Your task to perform on an android device: toggle wifi Image 0: 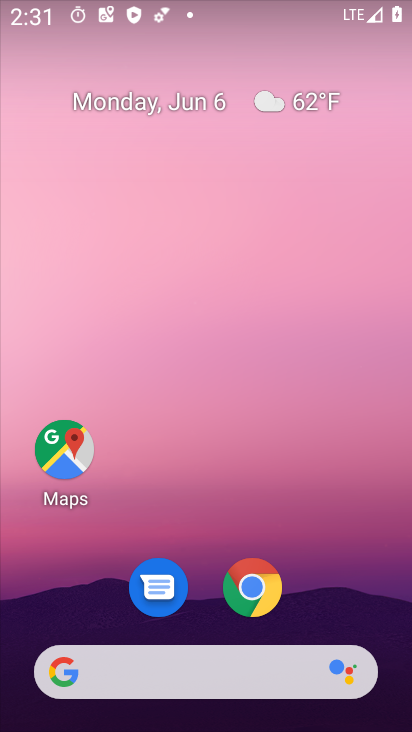
Step 0: drag from (314, 551) to (231, 53)
Your task to perform on an android device: toggle wifi Image 1: 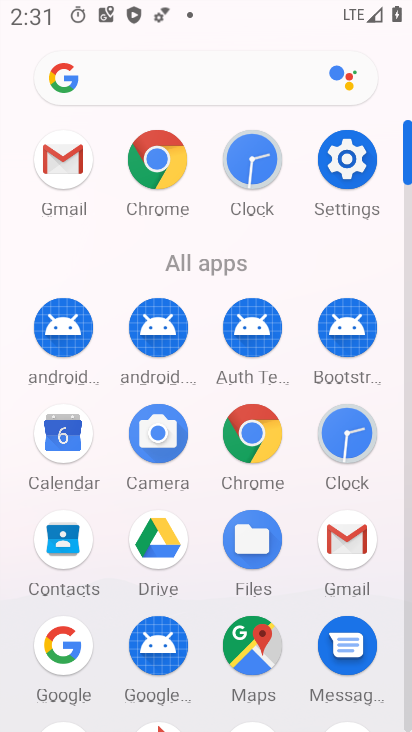
Step 1: drag from (16, 598) to (53, 282)
Your task to perform on an android device: toggle wifi Image 2: 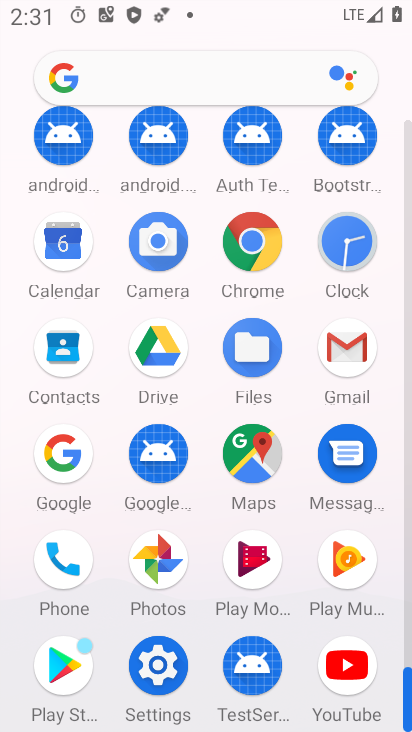
Step 2: click (162, 657)
Your task to perform on an android device: toggle wifi Image 3: 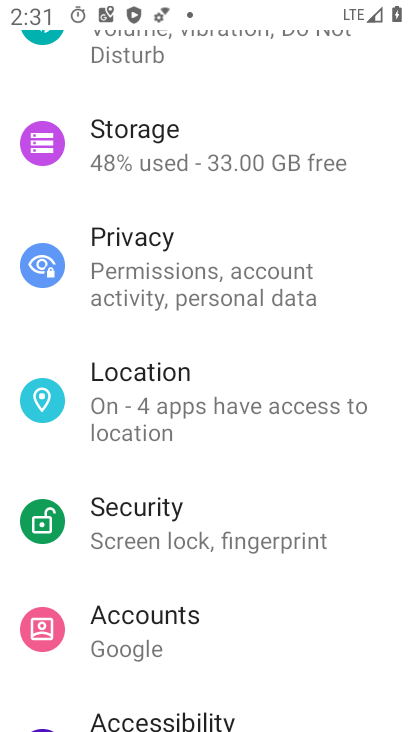
Step 3: drag from (239, 144) to (250, 589)
Your task to perform on an android device: toggle wifi Image 4: 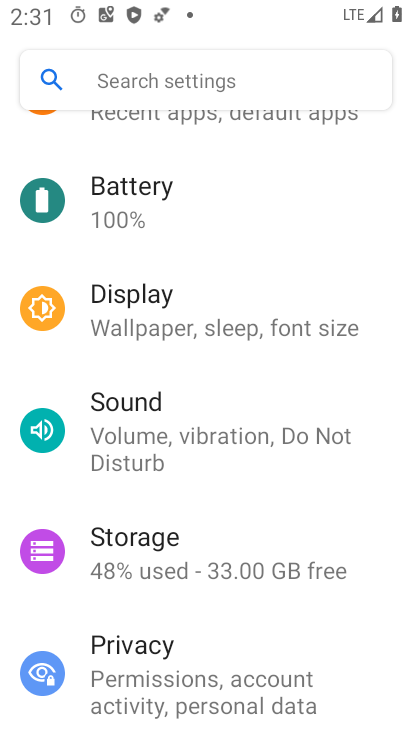
Step 4: drag from (243, 198) to (245, 543)
Your task to perform on an android device: toggle wifi Image 5: 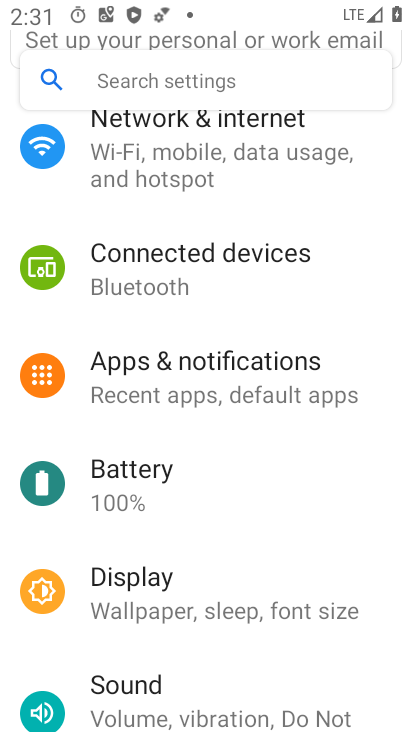
Step 5: drag from (245, 229) to (250, 577)
Your task to perform on an android device: toggle wifi Image 6: 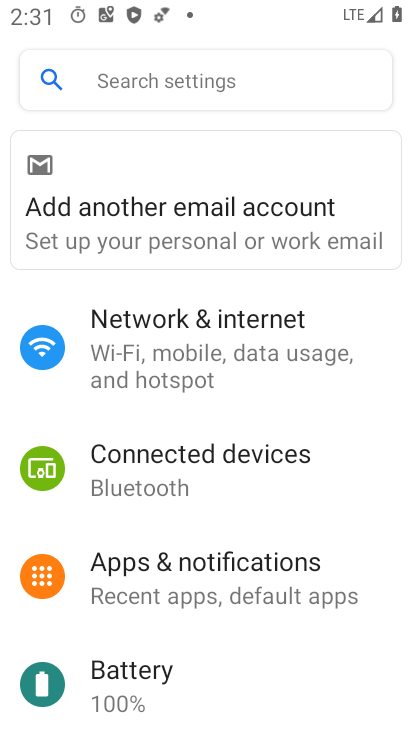
Step 6: click (186, 344)
Your task to perform on an android device: toggle wifi Image 7: 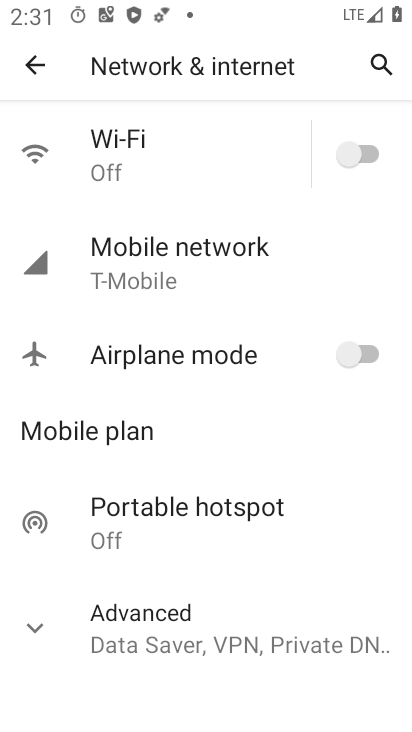
Step 7: click (337, 146)
Your task to perform on an android device: toggle wifi Image 8: 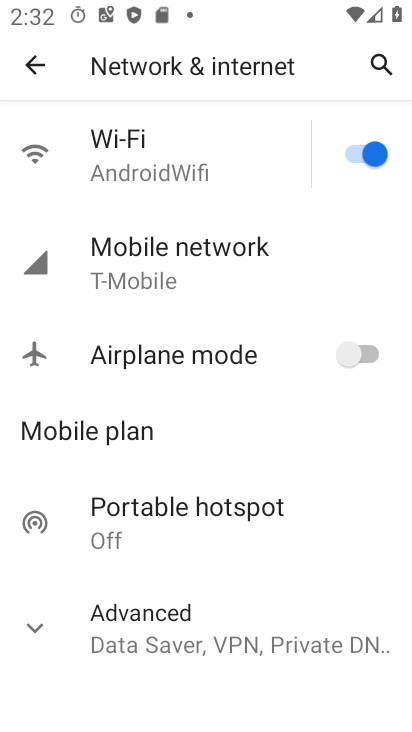
Step 8: task complete